Your task to perform on an android device: Show the shopping cart on ebay.com. Search for apple airpods pro on ebay.com, select the first entry, add it to the cart, then select checkout. Image 0: 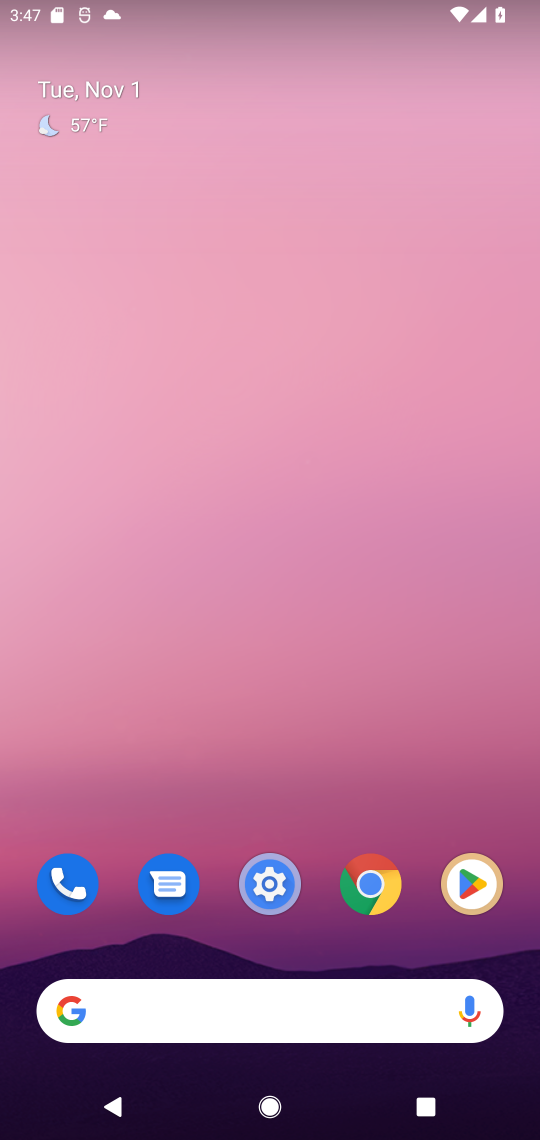
Step 0: press home button
Your task to perform on an android device: Show the shopping cart on ebay.com. Search for apple airpods pro on ebay.com, select the first entry, add it to the cart, then select checkout. Image 1: 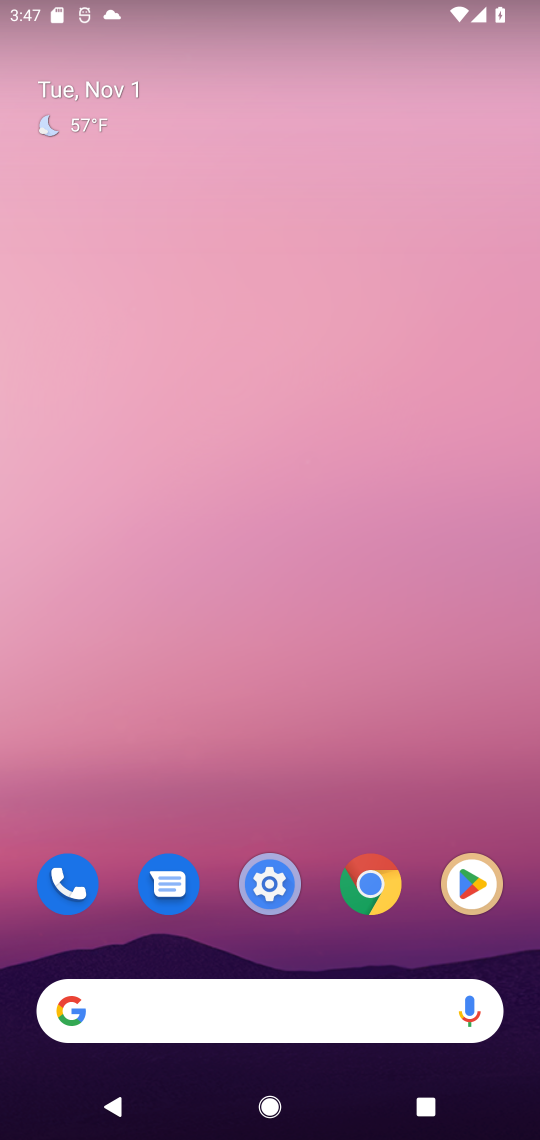
Step 1: click (111, 1002)
Your task to perform on an android device: Show the shopping cart on ebay.com. Search for apple airpods pro on ebay.com, select the first entry, add it to the cart, then select checkout. Image 2: 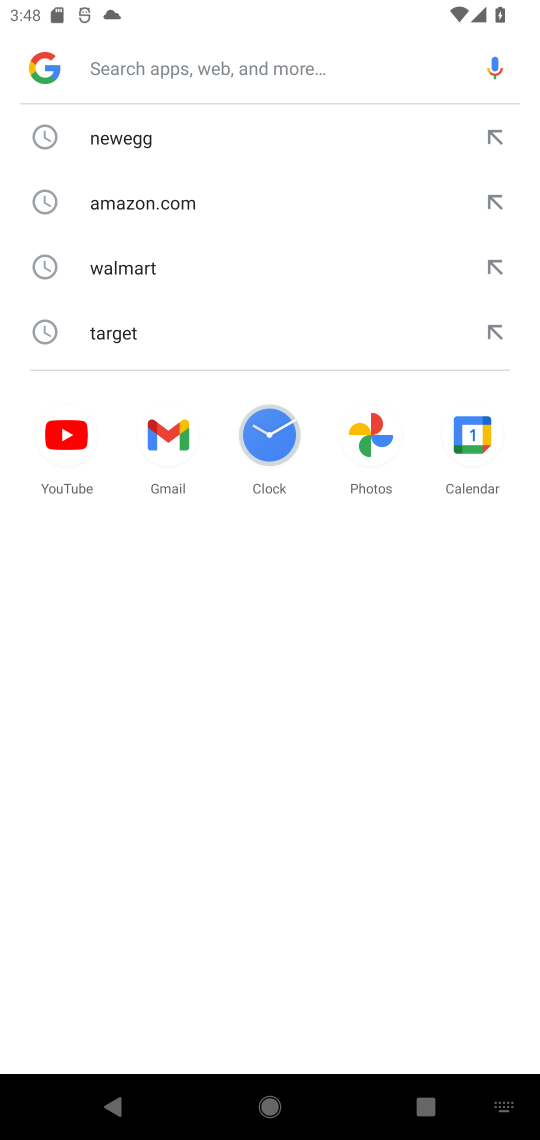
Step 2: type "ebay.com"
Your task to perform on an android device: Show the shopping cart on ebay.com. Search for apple airpods pro on ebay.com, select the first entry, add it to the cart, then select checkout. Image 3: 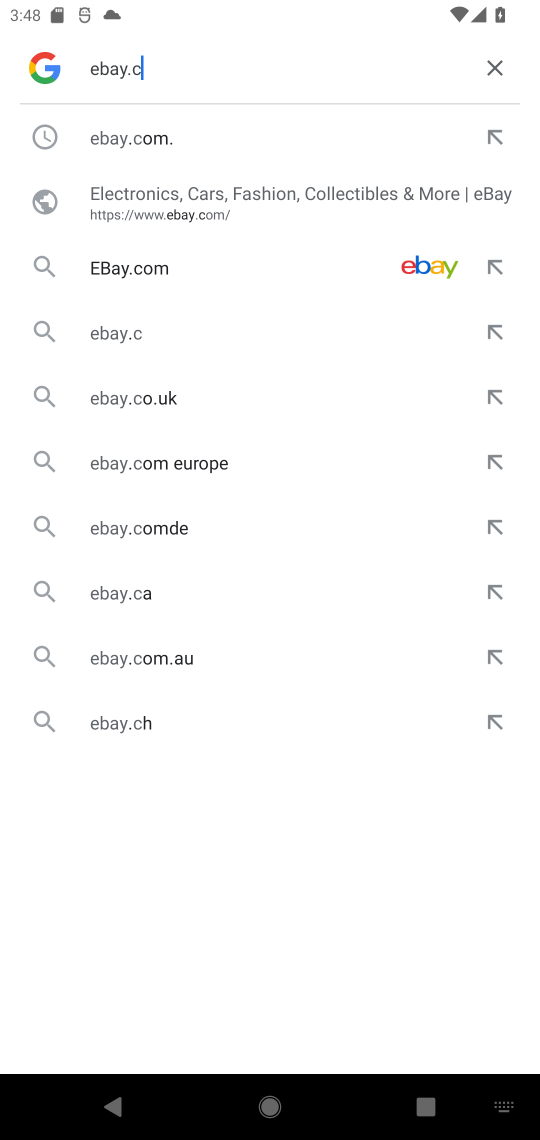
Step 3: press enter
Your task to perform on an android device: Show the shopping cart on ebay.com. Search for apple airpods pro on ebay.com, select the first entry, add it to the cart, then select checkout. Image 4: 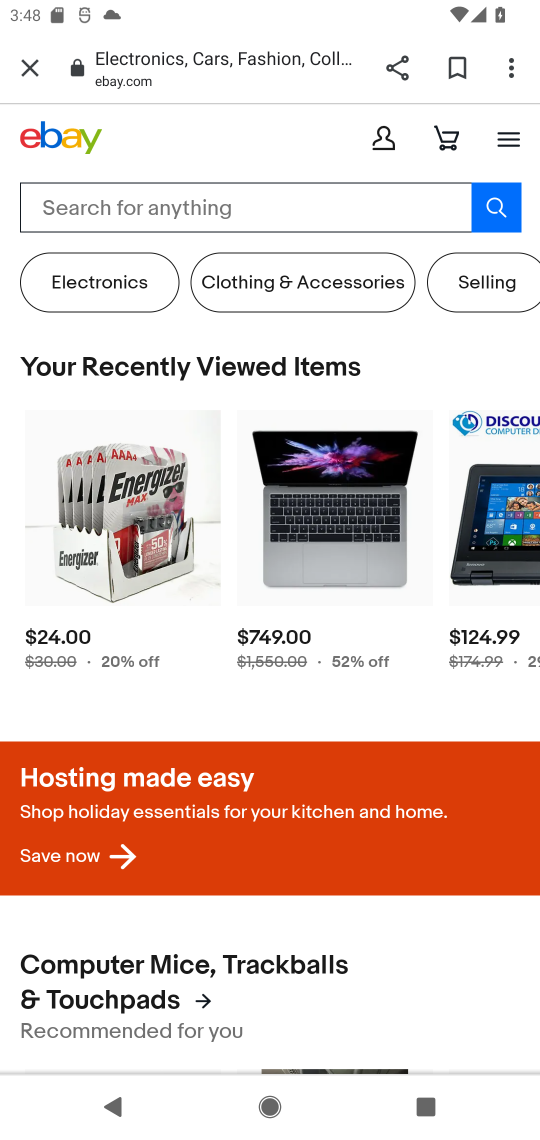
Step 4: click (122, 206)
Your task to perform on an android device: Show the shopping cart on ebay.com. Search for apple airpods pro on ebay.com, select the first entry, add it to the cart, then select checkout. Image 5: 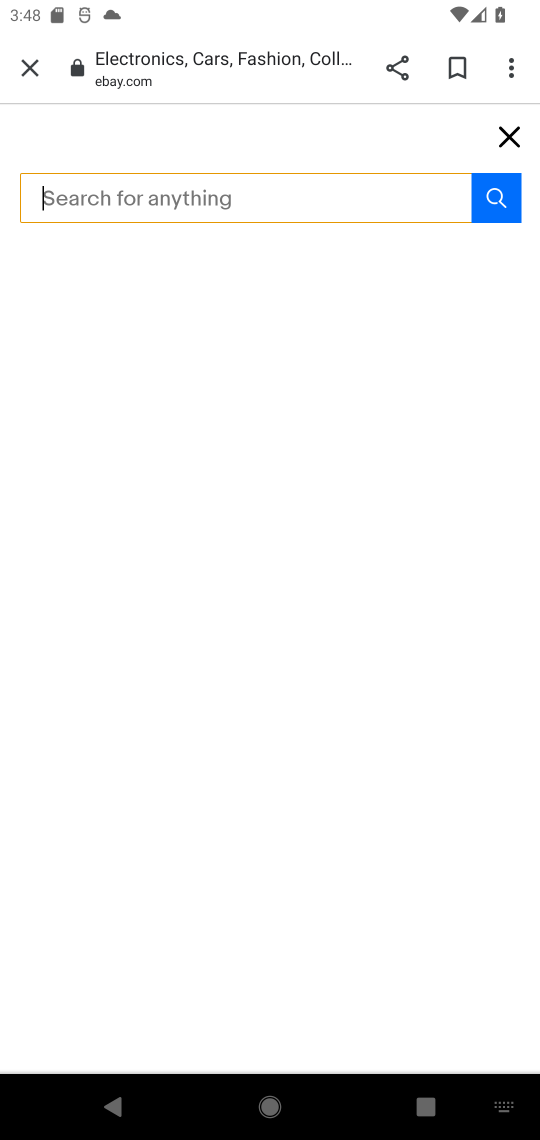
Step 5: press enter
Your task to perform on an android device: Show the shopping cart on ebay.com. Search for apple airpods pro on ebay.com, select the first entry, add it to the cart, then select checkout. Image 6: 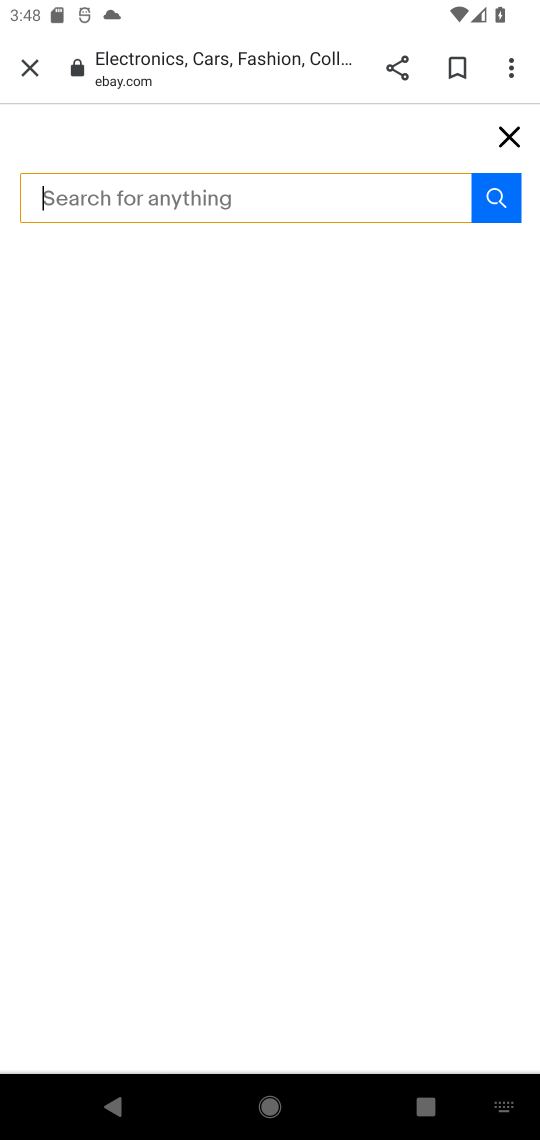
Step 6: type "apple airpods pro"
Your task to perform on an android device: Show the shopping cart on ebay.com. Search for apple airpods pro on ebay.com, select the first entry, add it to the cart, then select checkout. Image 7: 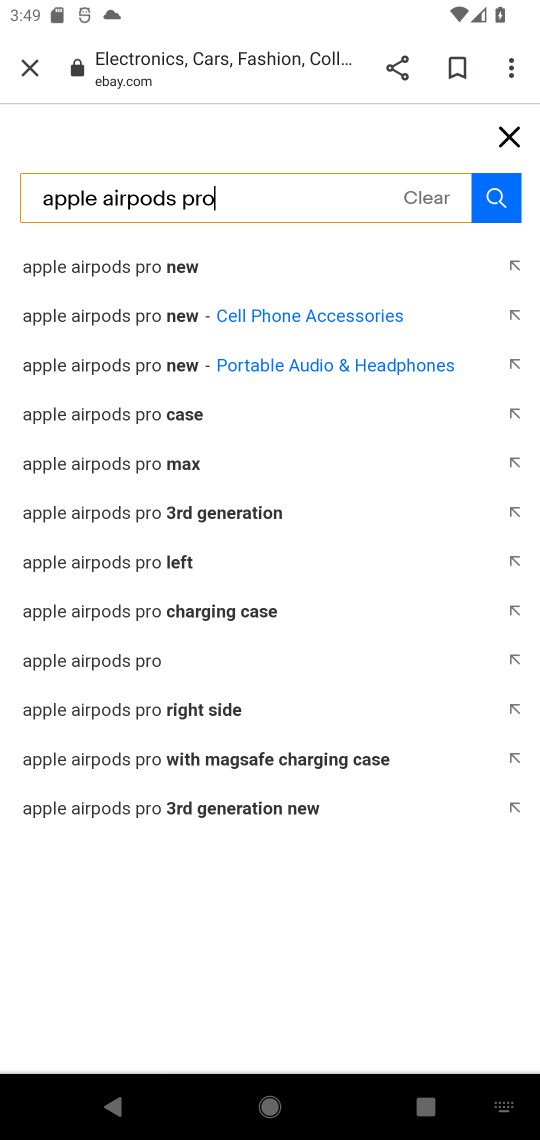
Step 7: click (508, 192)
Your task to perform on an android device: Show the shopping cart on ebay.com. Search for apple airpods pro on ebay.com, select the first entry, add it to the cart, then select checkout. Image 8: 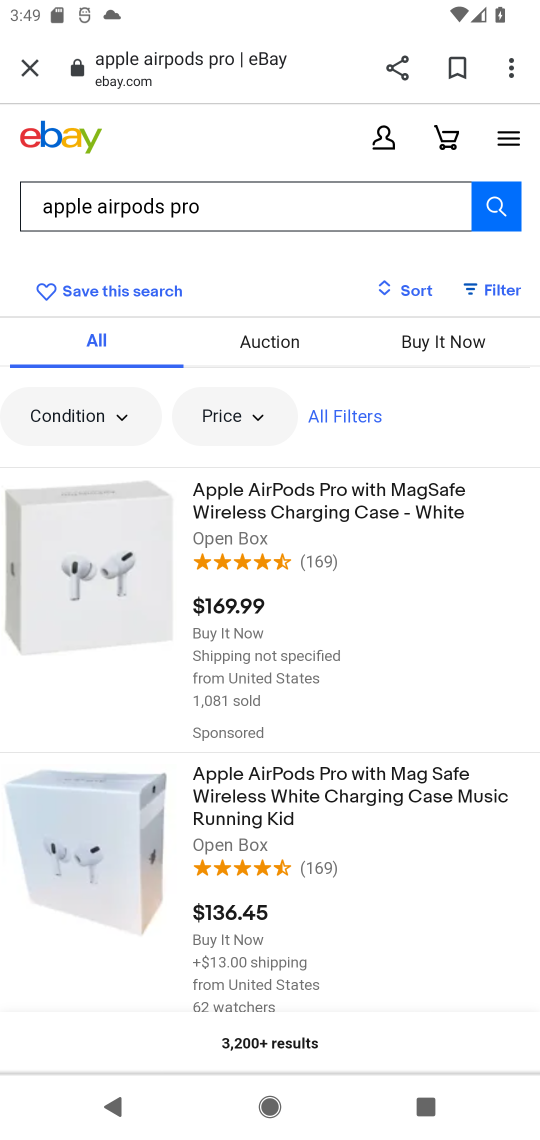
Step 8: click (252, 504)
Your task to perform on an android device: Show the shopping cart on ebay.com. Search for apple airpods pro on ebay.com, select the first entry, add it to the cart, then select checkout. Image 9: 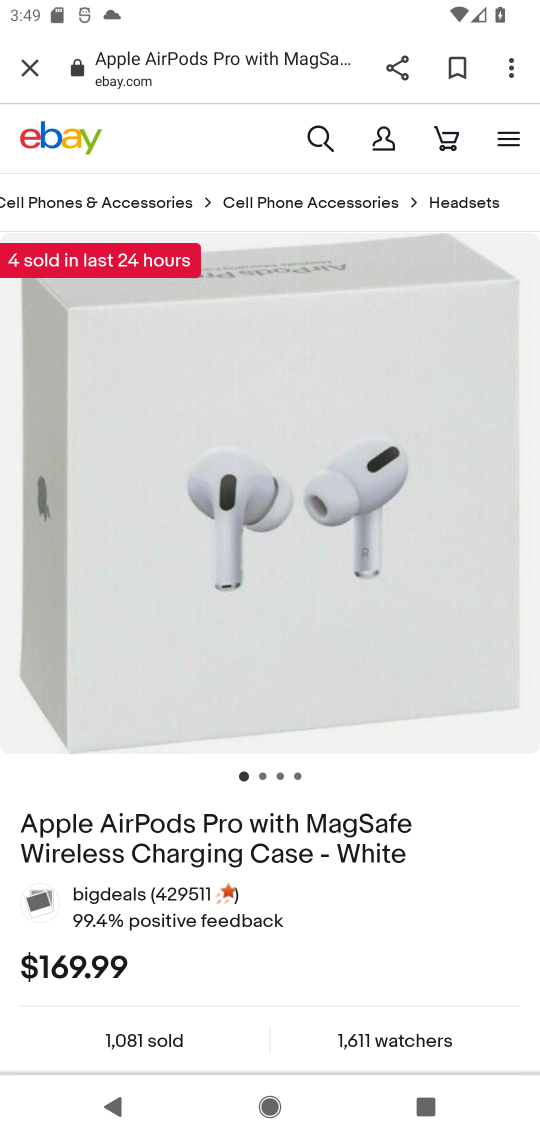
Step 9: drag from (325, 884) to (328, 495)
Your task to perform on an android device: Show the shopping cart on ebay.com. Search for apple airpods pro on ebay.com, select the first entry, add it to the cart, then select checkout. Image 10: 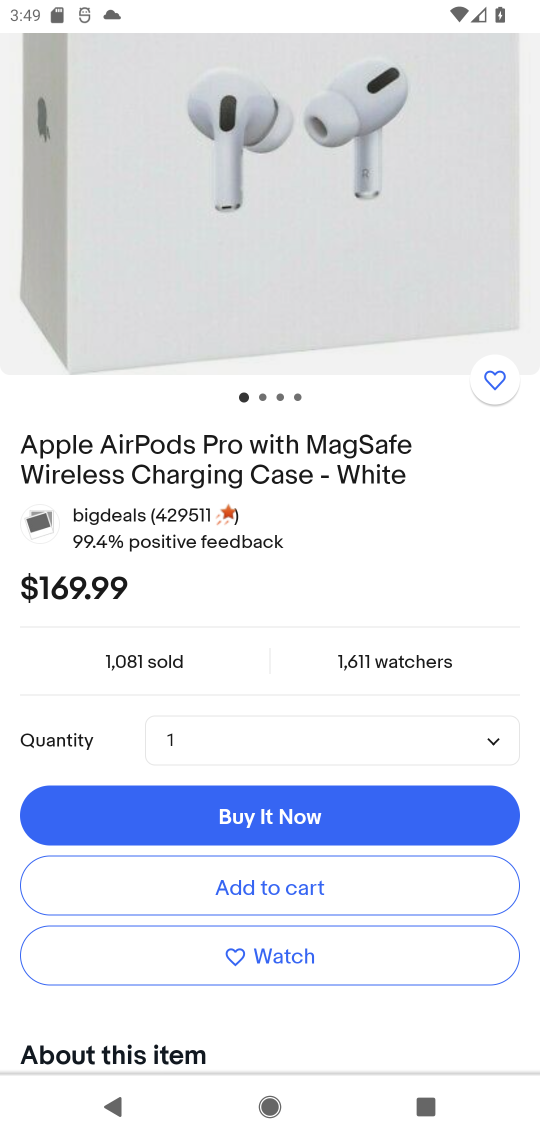
Step 10: click (258, 880)
Your task to perform on an android device: Show the shopping cart on ebay.com. Search for apple airpods pro on ebay.com, select the first entry, add it to the cart, then select checkout. Image 11: 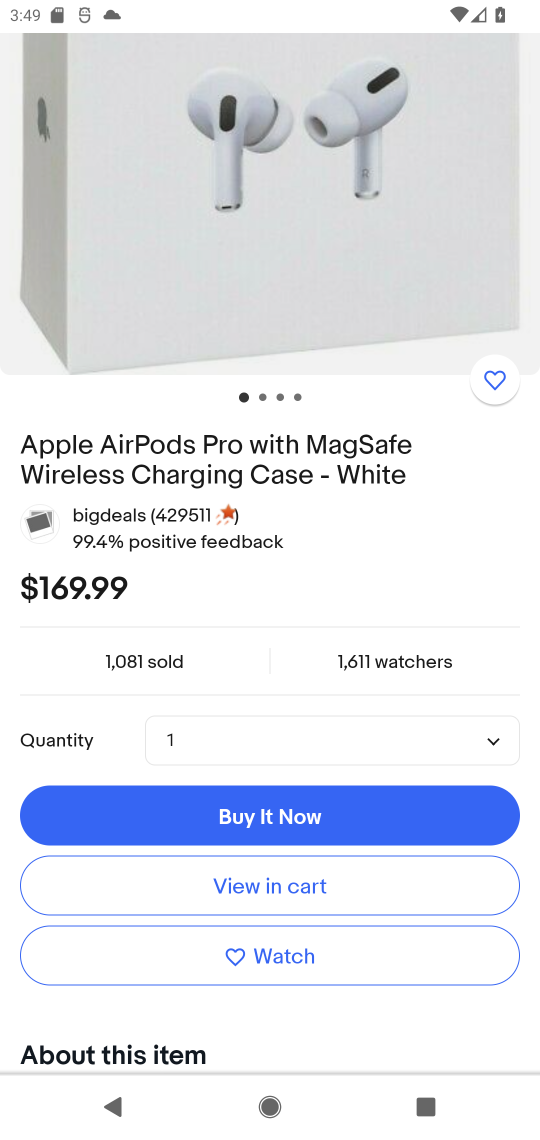
Step 11: click (309, 882)
Your task to perform on an android device: Show the shopping cart on ebay.com. Search for apple airpods pro on ebay.com, select the first entry, add it to the cart, then select checkout. Image 12: 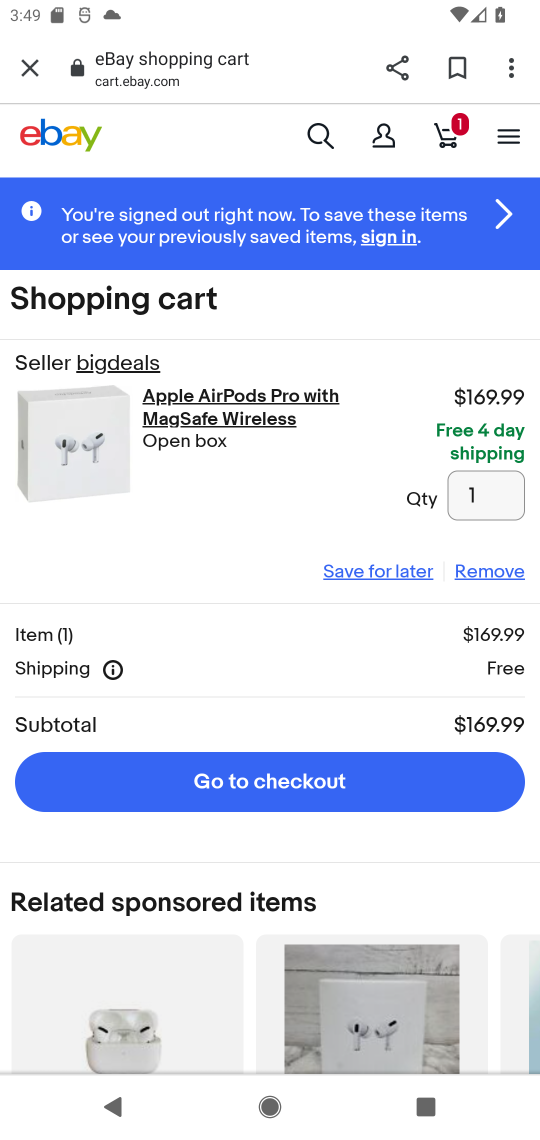
Step 12: click (352, 785)
Your task to perform on an android device: Show the shopping cart on ebay.com. Search for apple airpods pro on ebay.com, select the first entry, add it to the cart, then select checkout. Image 13: 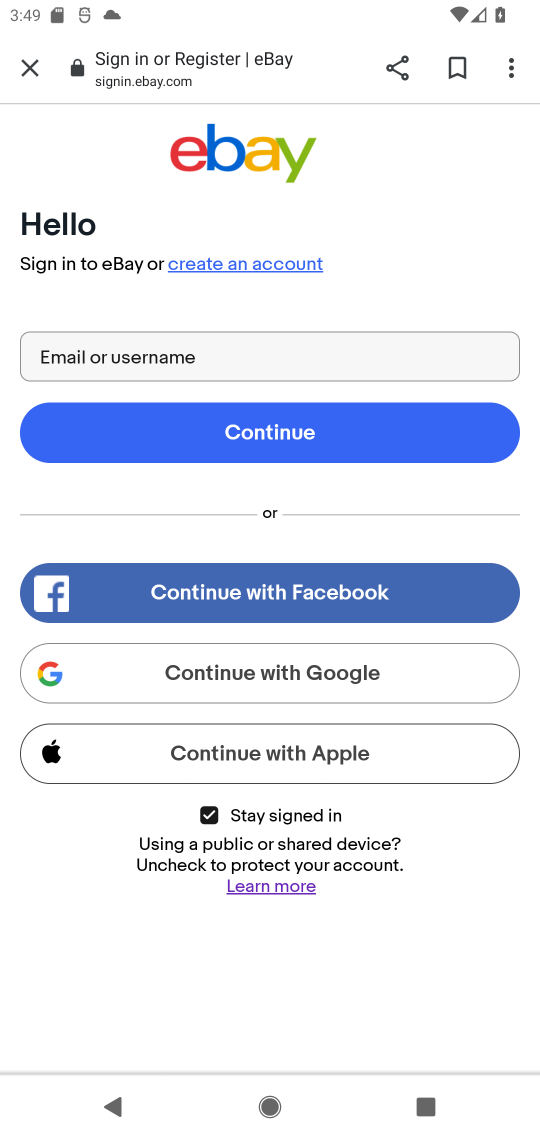
Step 13: task complete